Your task to perform on an android device: Do I have any events this weekend? Image 0: 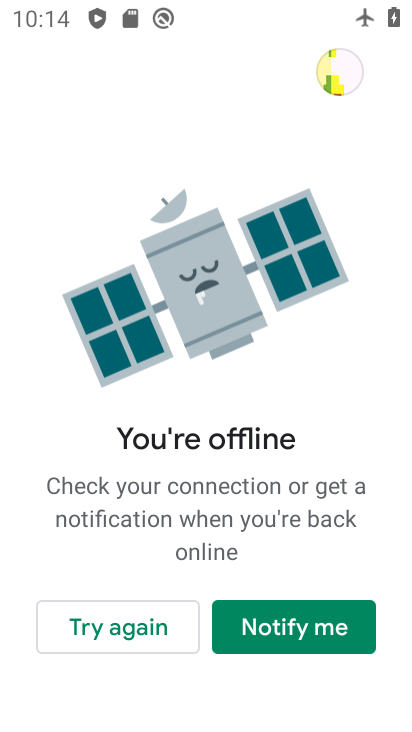
Step 0: press home button
Your task to perform on an android device: Do I have any events this weekend? Image 1: 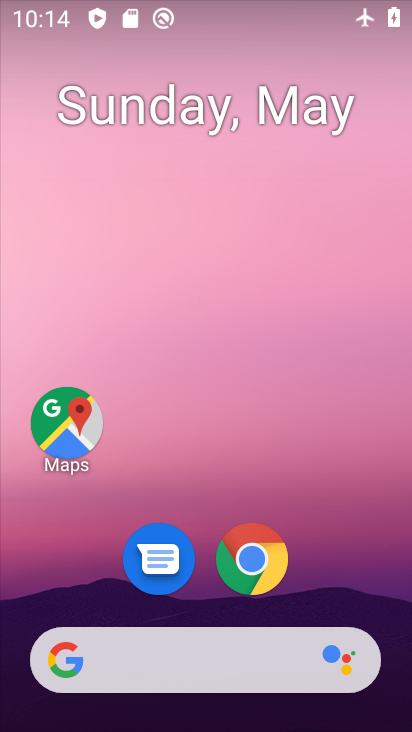
Step 1: drag from (363, 576) to (321, 104)
Your task to perform on an android device: Do I have any events this weekend? Image 2: 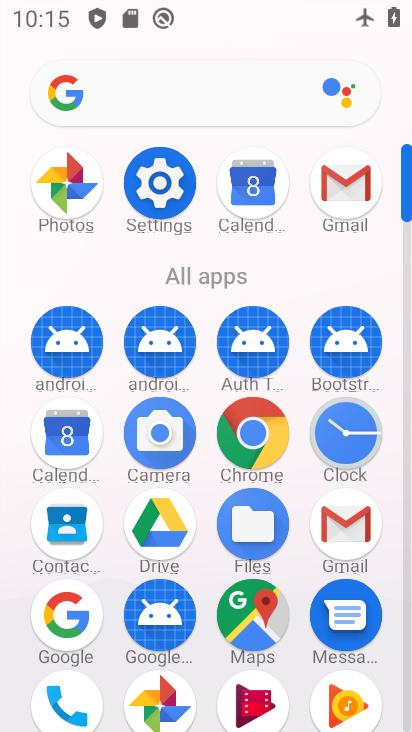
Step 2: click (61, 448)
Your task to perform on an android device: Do I have any events this weekend? Image 3: 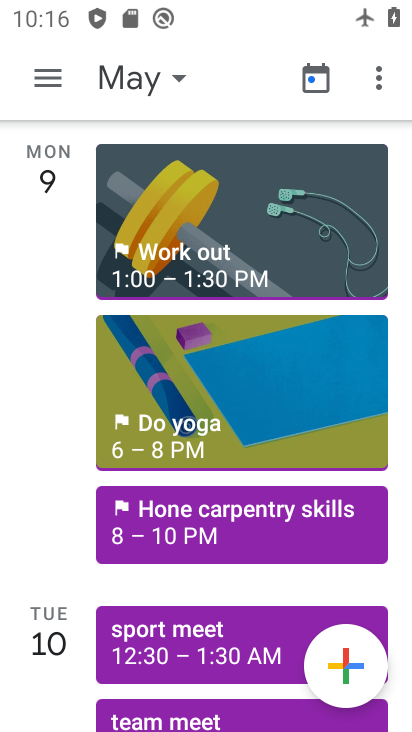
Step 3: click (149, 78)
Your task to perform on an android device: Do I have any events this weekend? Image 4: 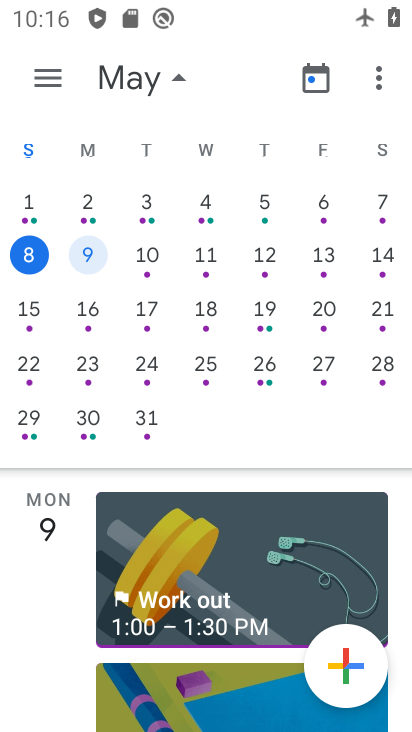
Step 4: click (61, 87)
Your task to perform on an android device: Do I have any events this weekend? Image 5: 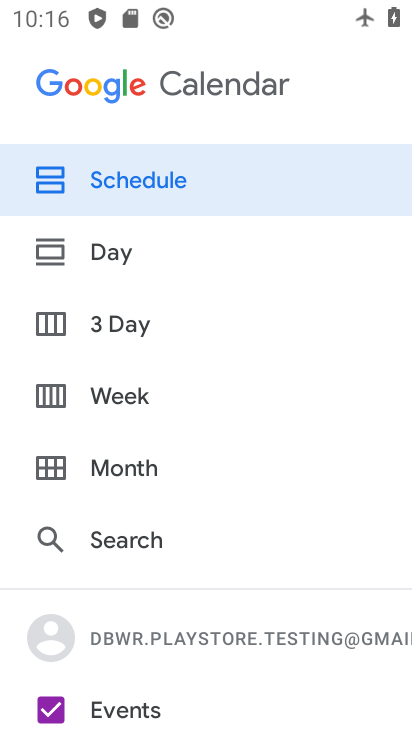
Step 5: click (98, 191)
Your task to perform on an android device: Do I have any events this weekend? Image 6: 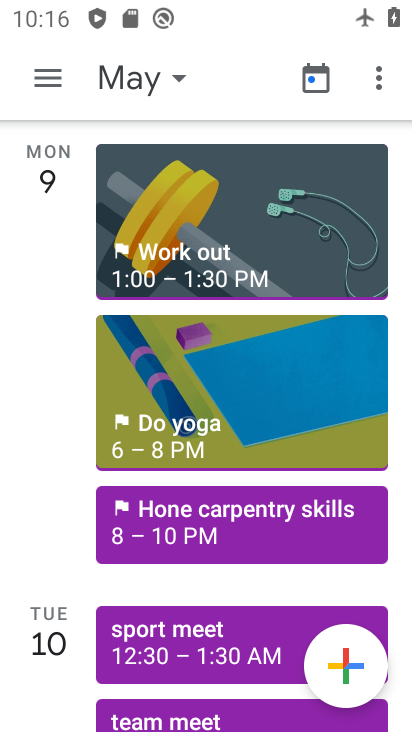
Step 6: task complete